Your task to perform on an android device: turn off notifications in google photos Image 0: 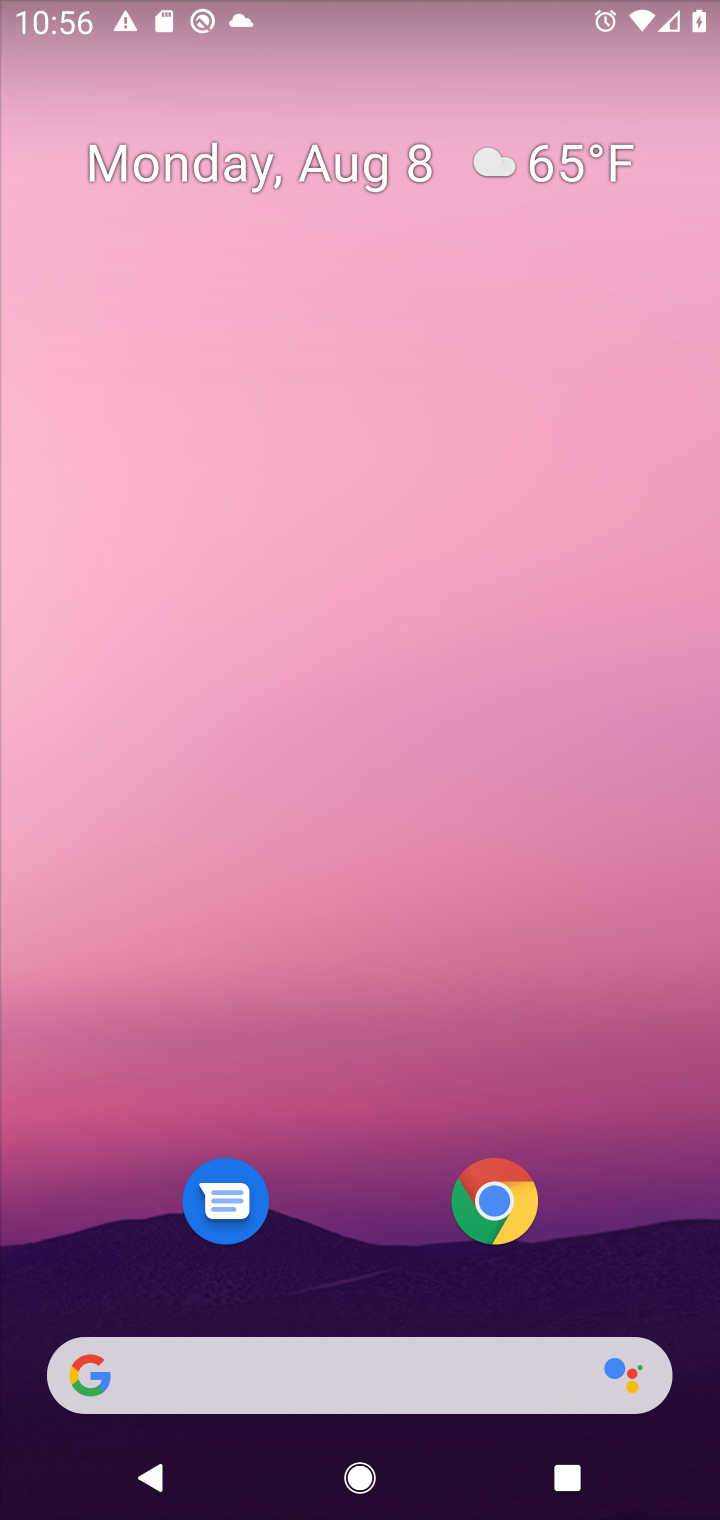
Step 0: drag from (381, 1264) to (441, 190)
Your task to perform on an android device: turn off notifications in google photos Image 1: 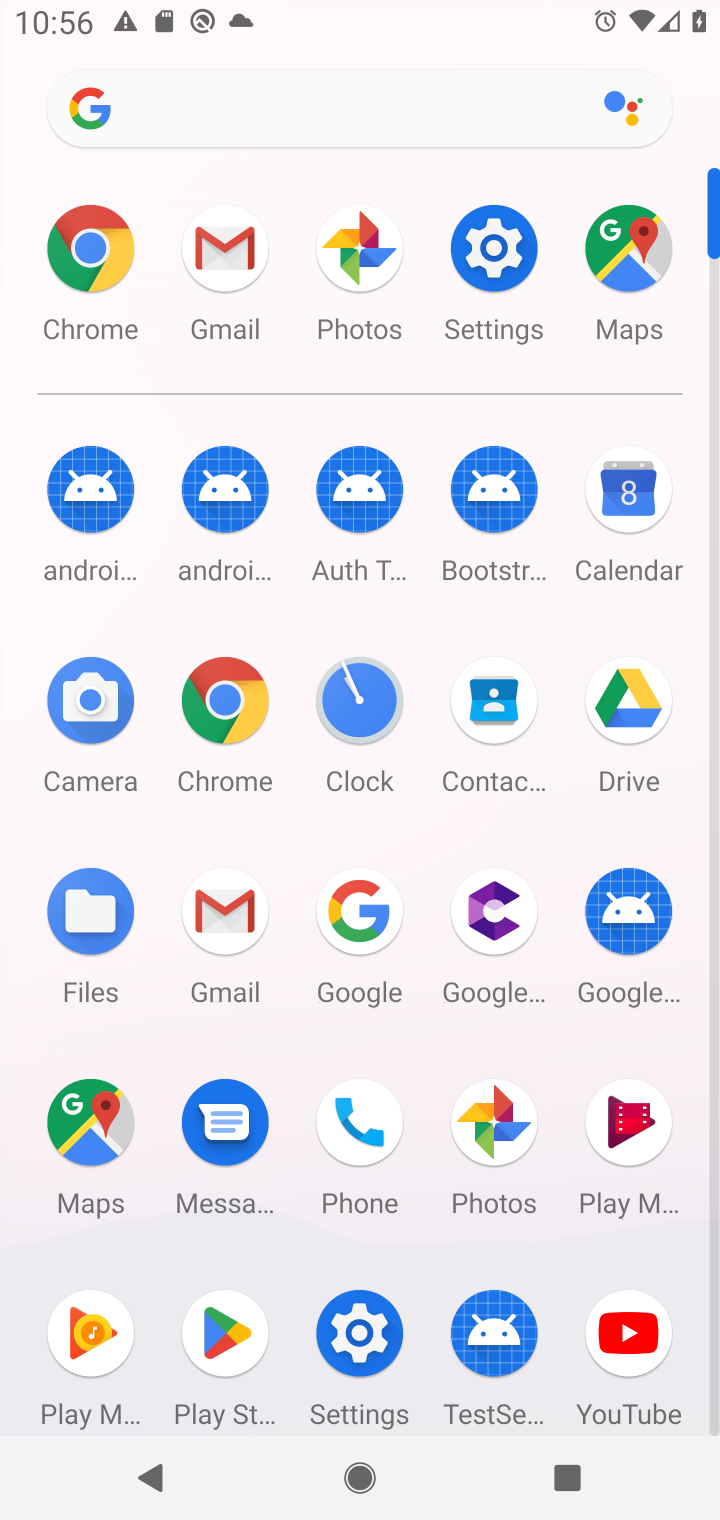
Step 1: click (517, 1116)
Your task to perform on an android device: turn off notifications in google photos Image 2: 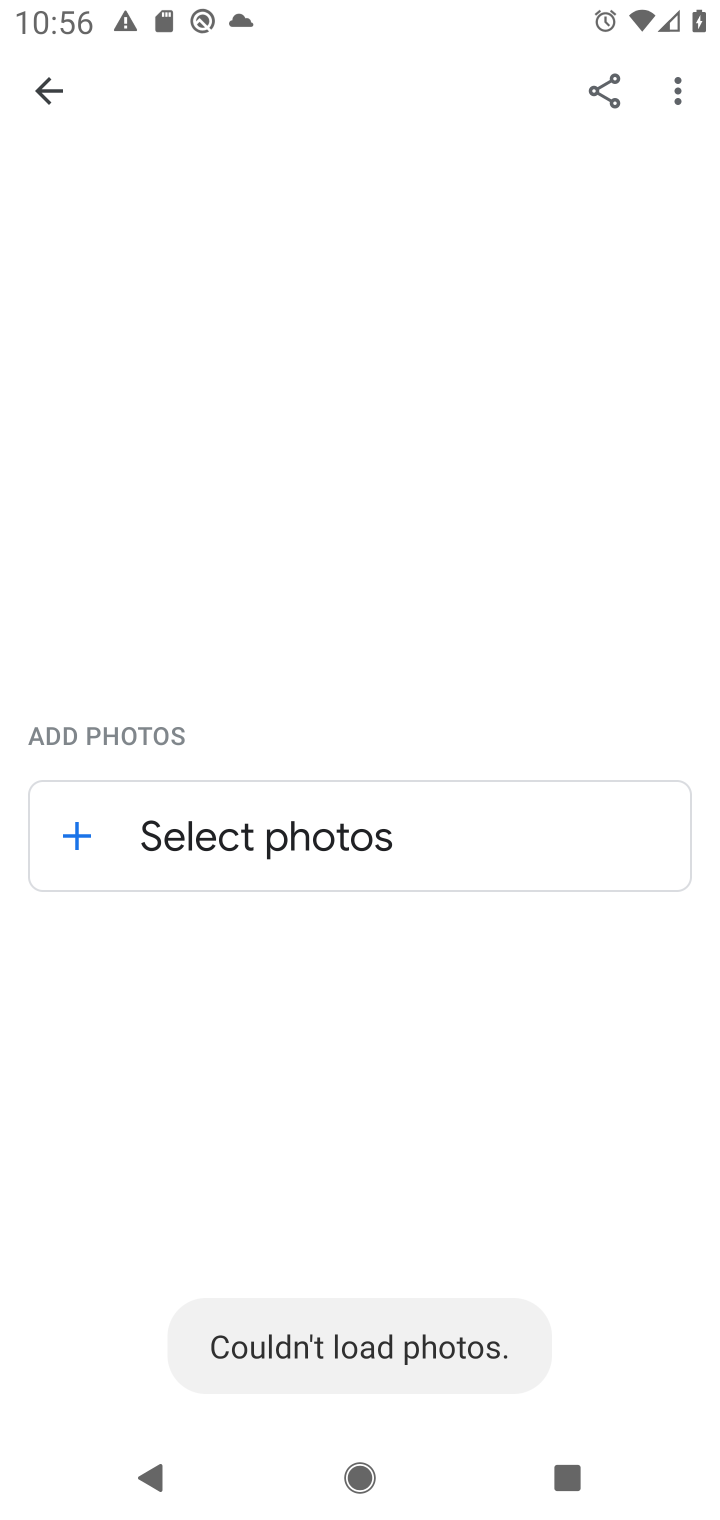
Step 2: press back button
Your task to perform on an android device: turn off notifications in google photos Image 3: 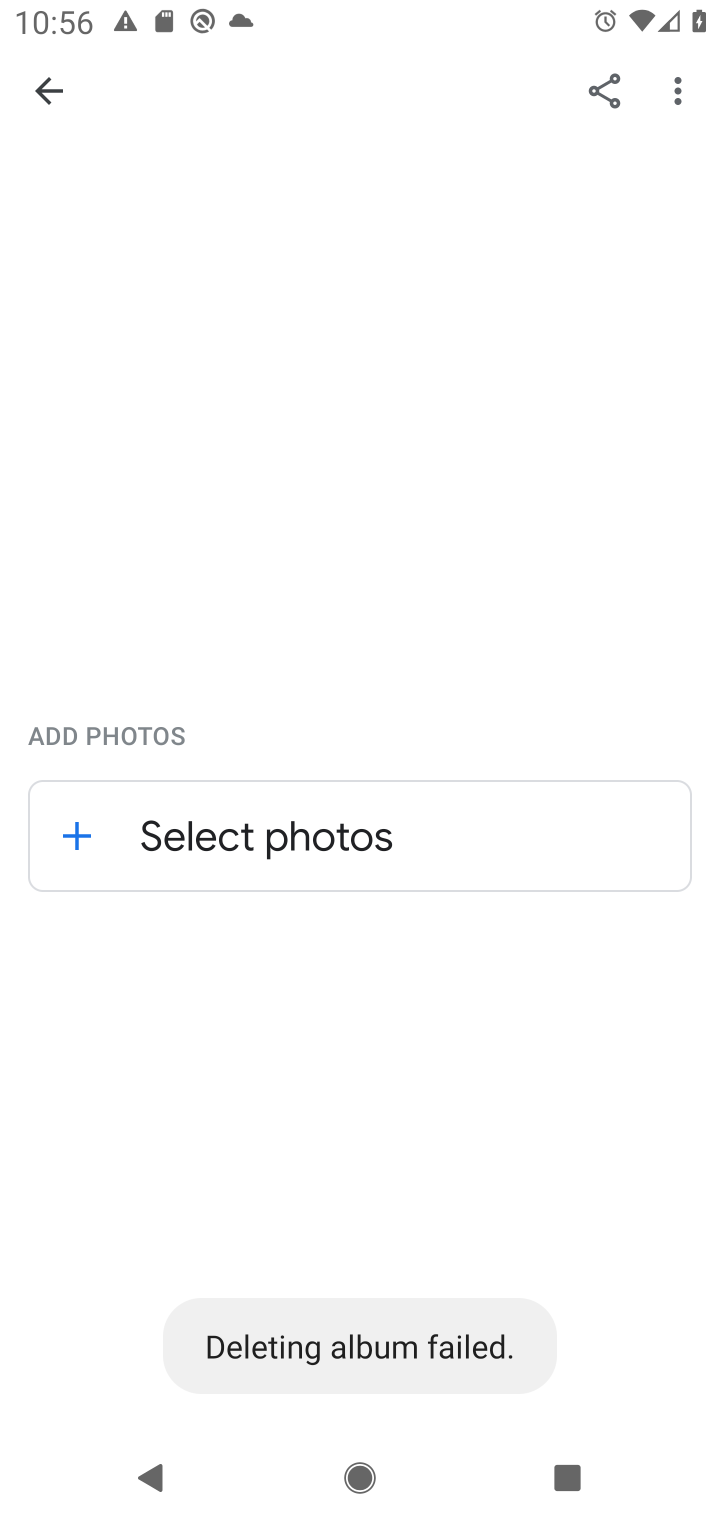
Step 3: press back button
Your task to perform on an android device: turn off notifications in google photos Image 4: 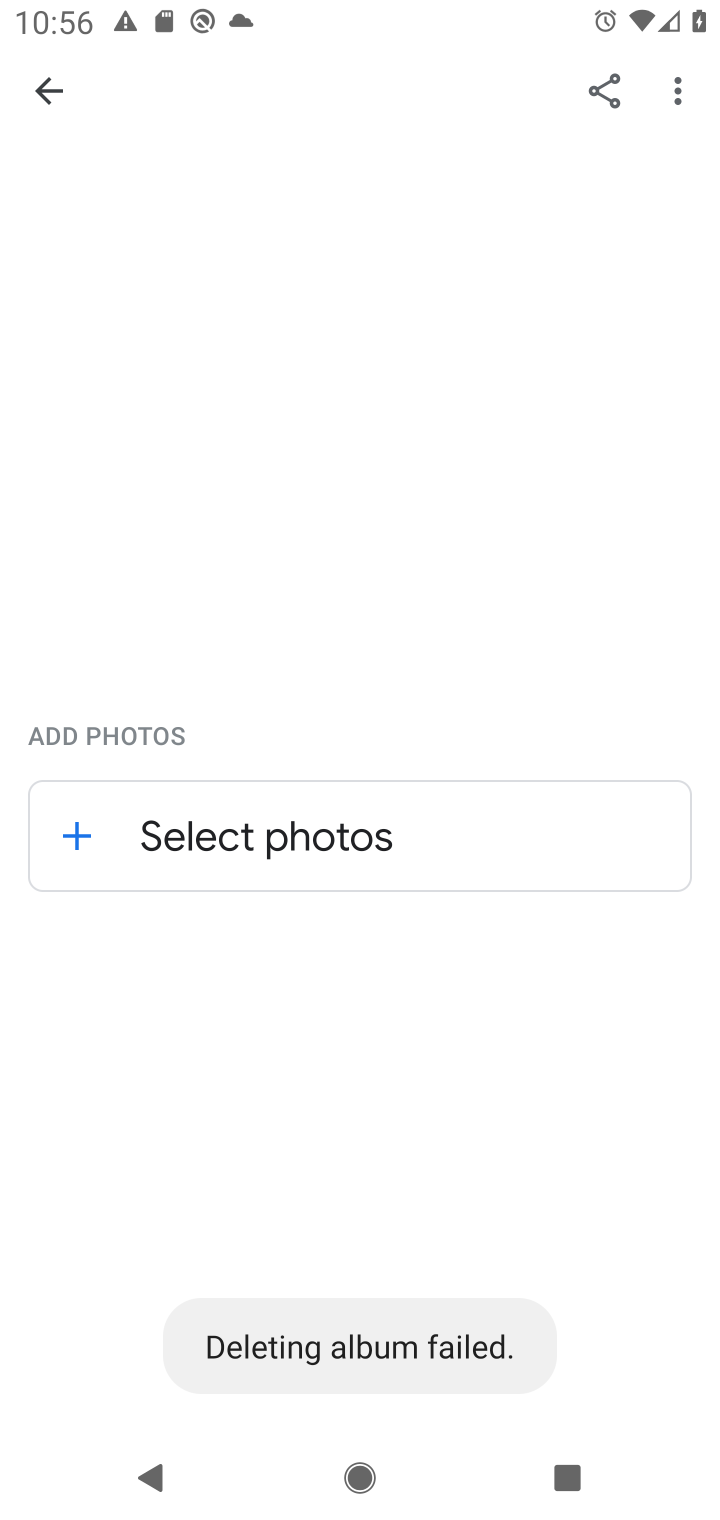
Step 4: press back button
Your task to perform on an android device: turn off notifications in google photos Image 5: 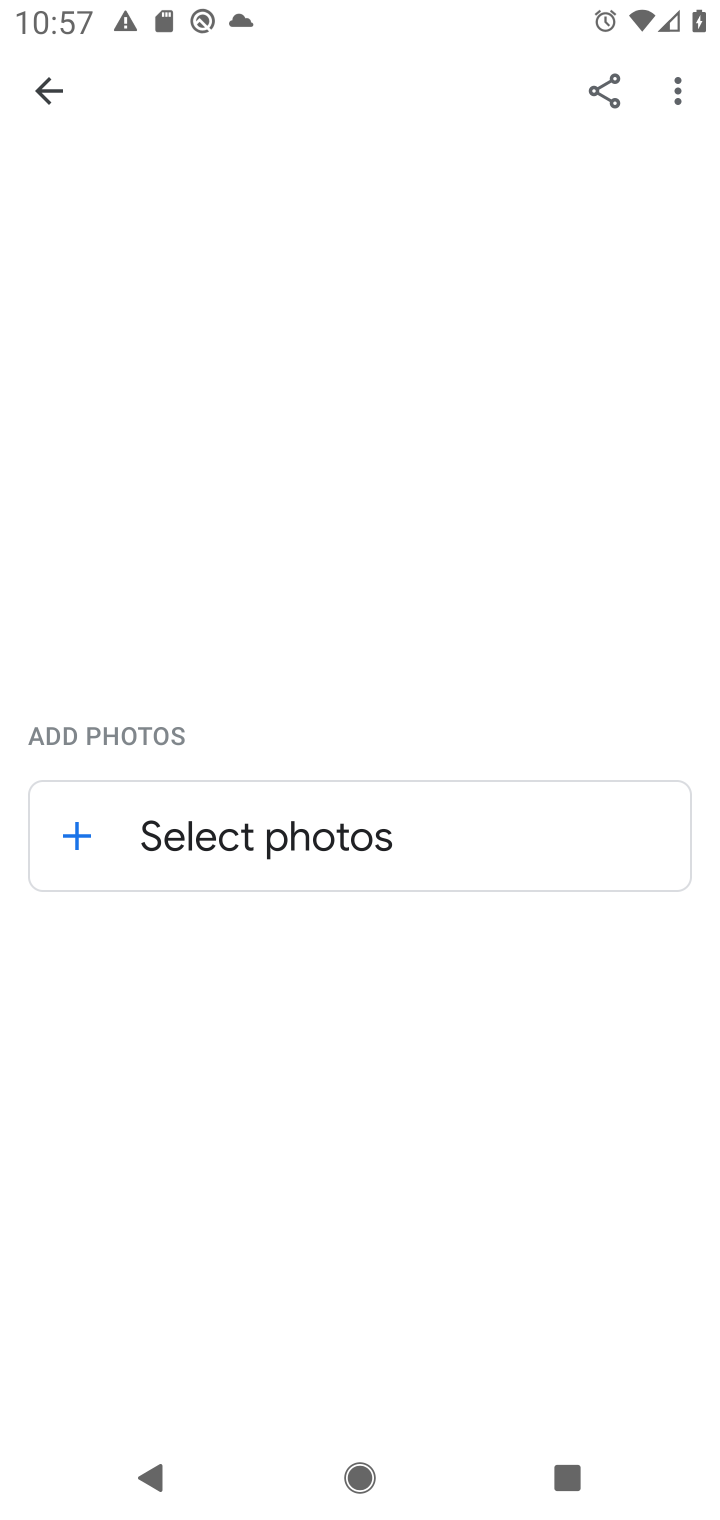
Step 5: click (43, 86)
Your task to perform on an android device: turn off notifications in google photos Image 6: 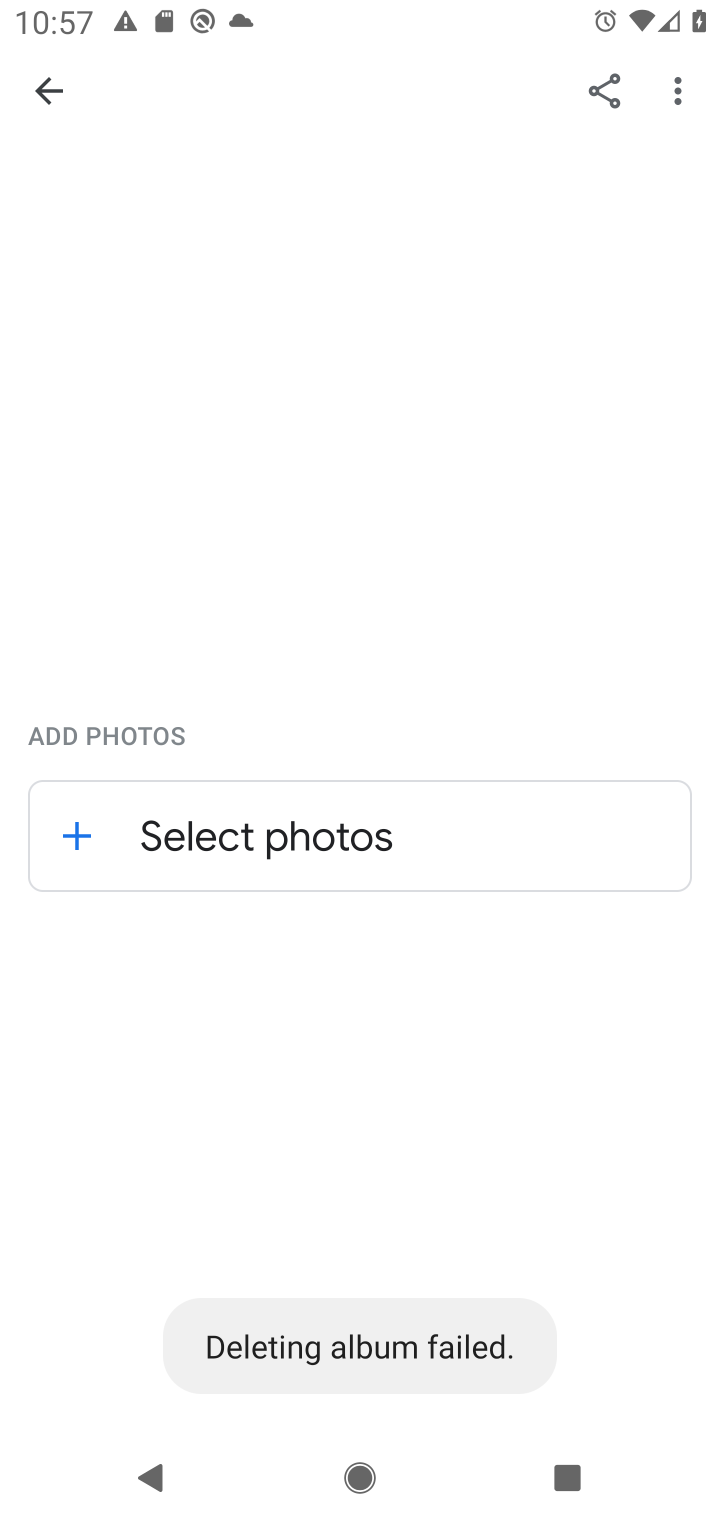
Step 6: click (49, 81)
Your task to perform on an android device: turn off notifications in google photos Image 7: 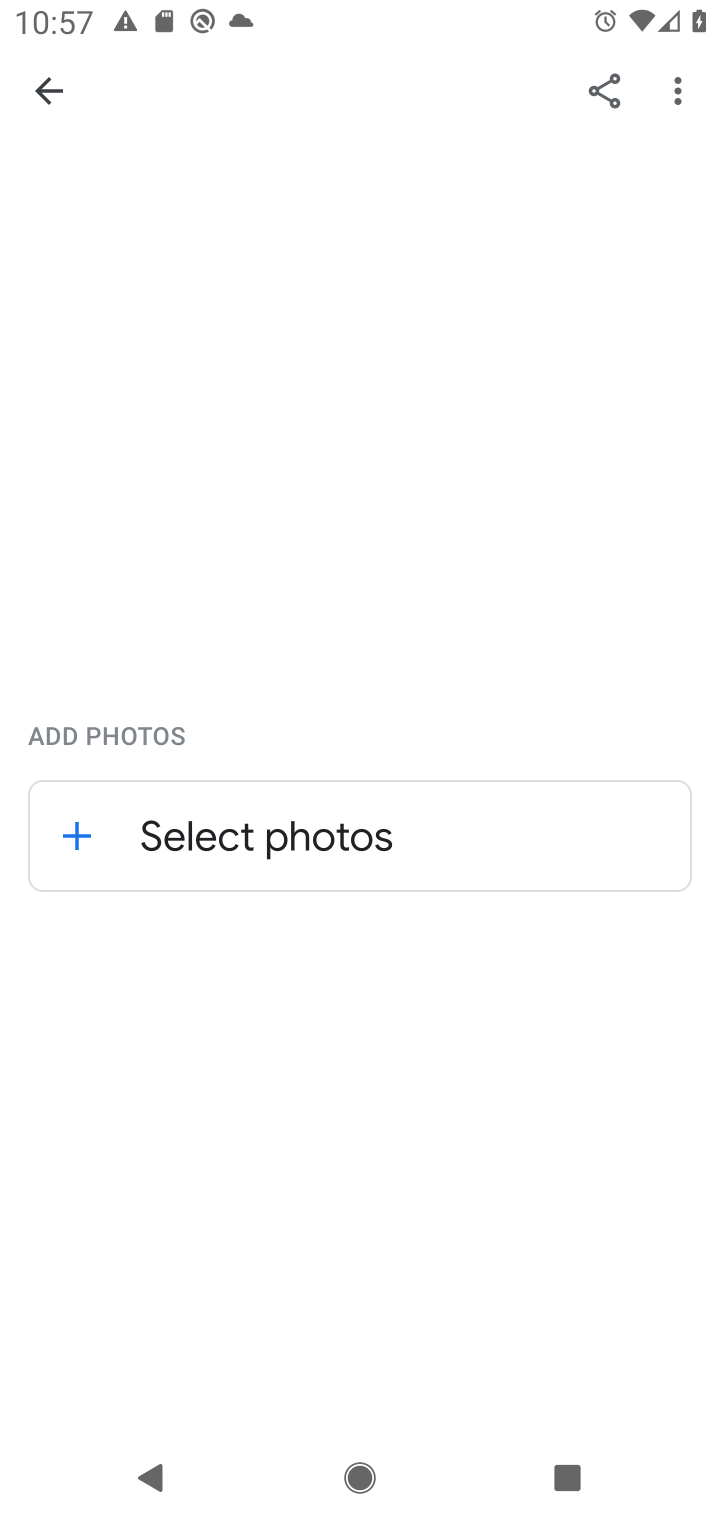
Step 7: task complete